Your task to perform on an android device: turn off wifi Image 0: 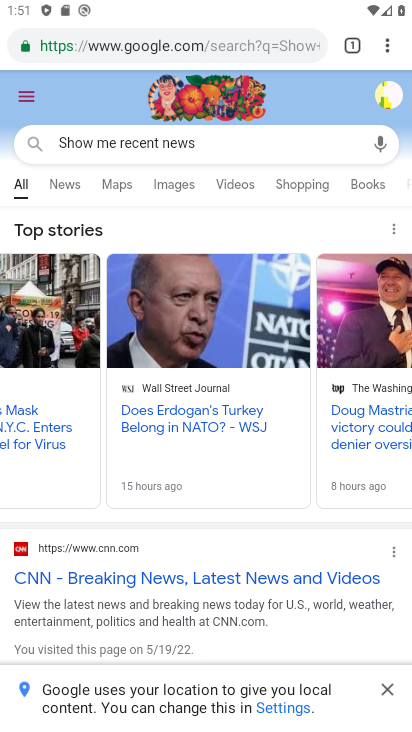
Step 0: press back button
Your task to perform on an android device: turn off wifi Image 1: 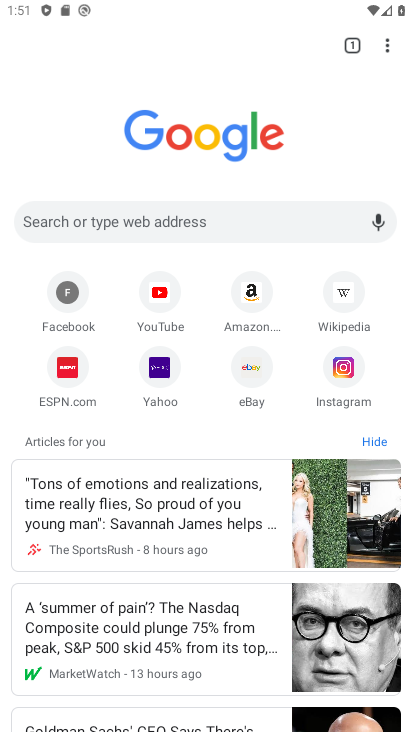
Step 1: press back button
Your task to perform on an android device: turn off wifi Image 2: 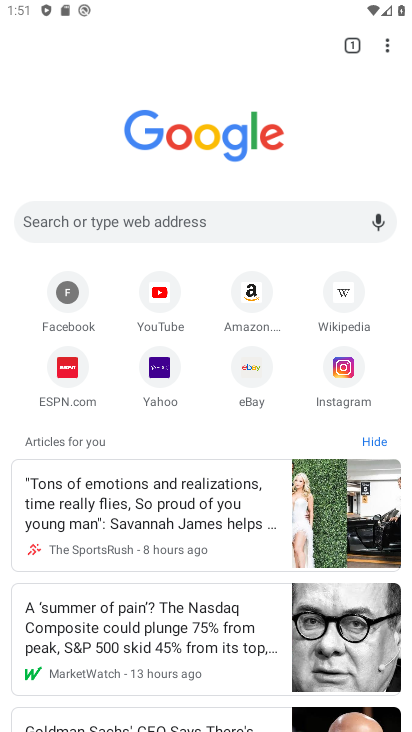
Step 2: press home button
Your task to perform on an android device: turn off wifi Image 3: 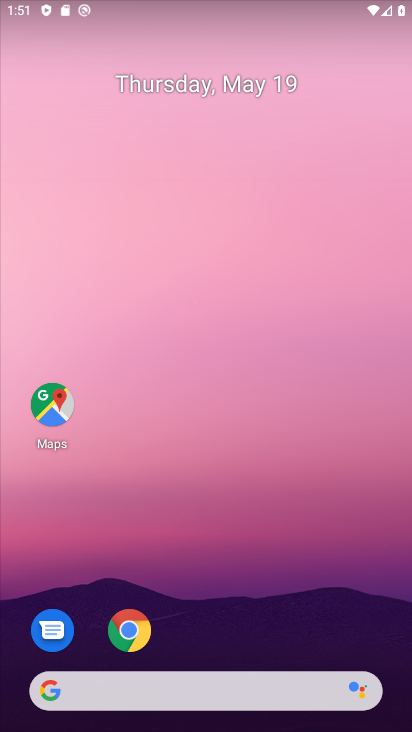
Step 3: drag from (345, 540) to (279, 8)
Your task to perform on an android device: turn off wifi Image 4: 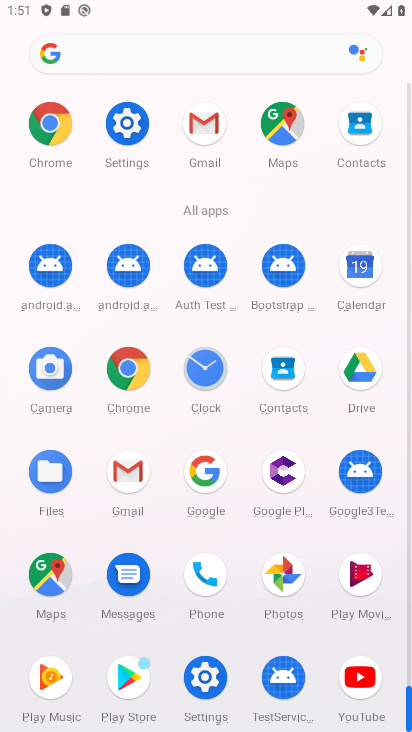
Step 4: click (207, 674)
Your task to perform on an android device: turn off wifi Image 5: 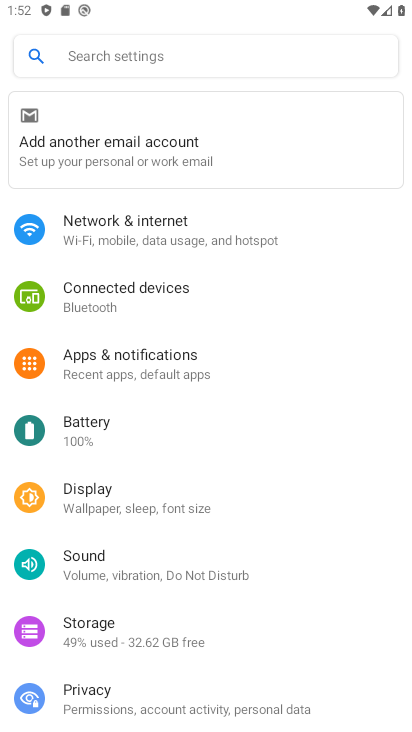
Step 5: click (173, 223)
Your task to perform on an android device: turn off wifi Image 6: 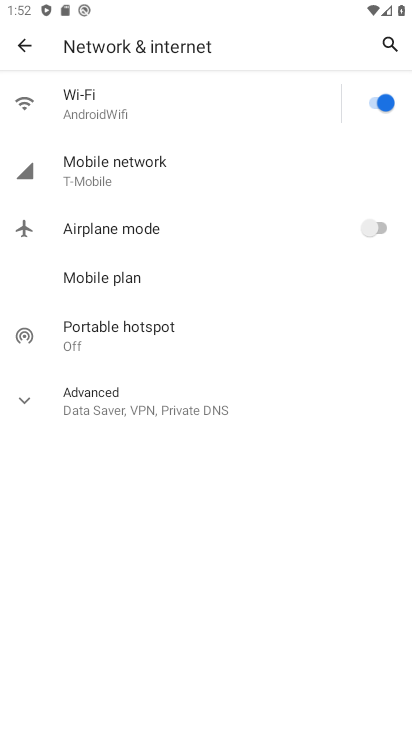
Step 6: click (381, 99)
Your task to perform on an android device: turn off wifi Image 7: 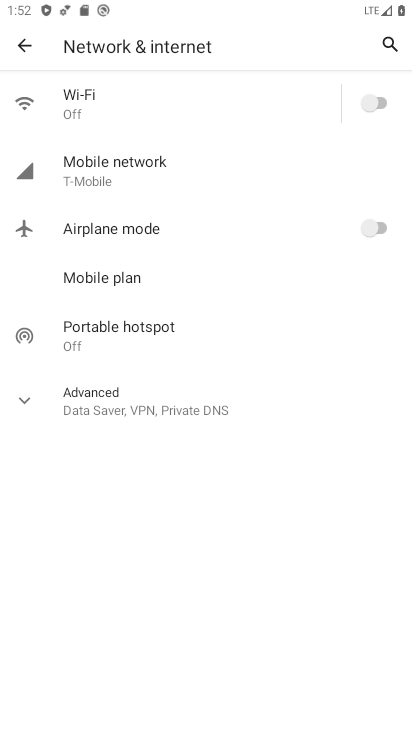
Step 7: task complete